Your task to perform on an android device: Empty the shopping cart on bestbuy.com. Add "macbook pro 15 inch" to the cart on bestbuy.com, then select checkout. Image 0: 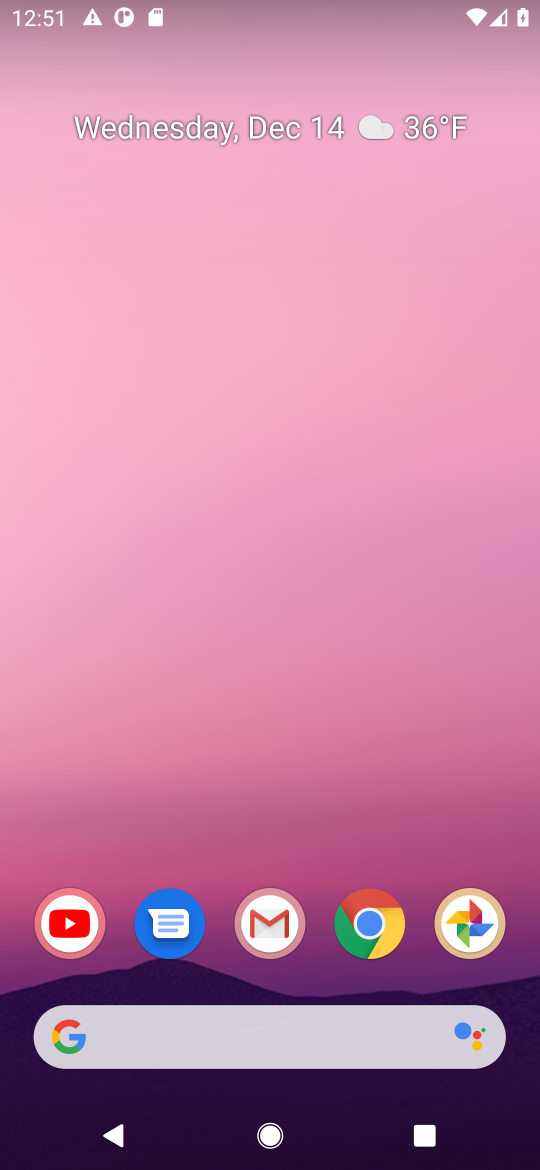
Step 0: click (354, 933)
Your task to perform on an android device: Empty the shopping cart on bestbuy.com. Add "macbook pro 15 inch" to the cart on bestbuy.com, then select checkout. Image 1: 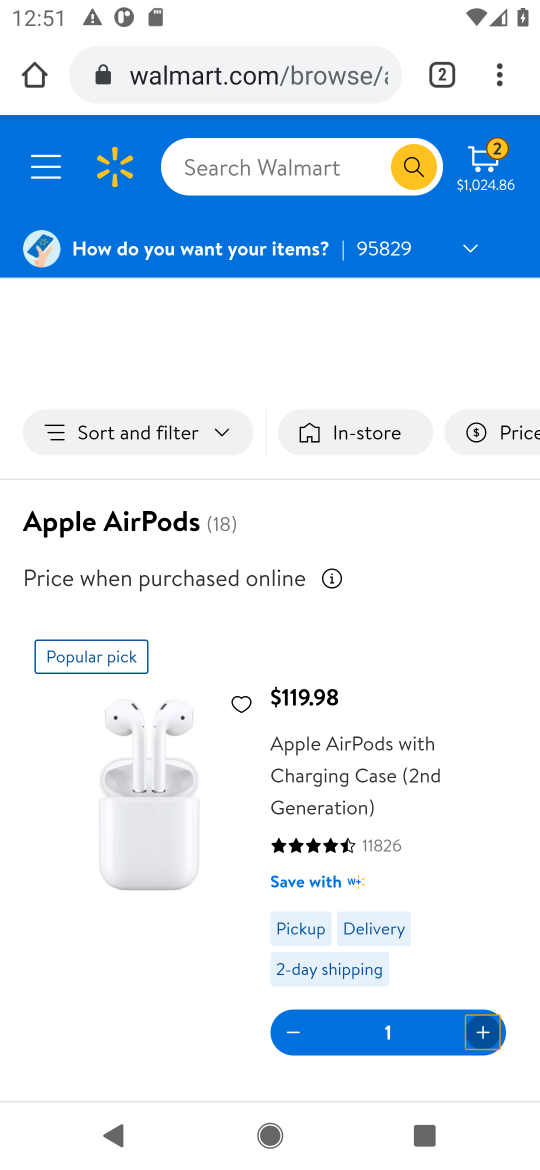
Step 1: click (222, 92)
Your task to perform on an android device: Empty the shopping cart on bestbuy.com. Add "macbook pro 15 inch" to the cart on bestbuy.com, then select checkout. Image 2: 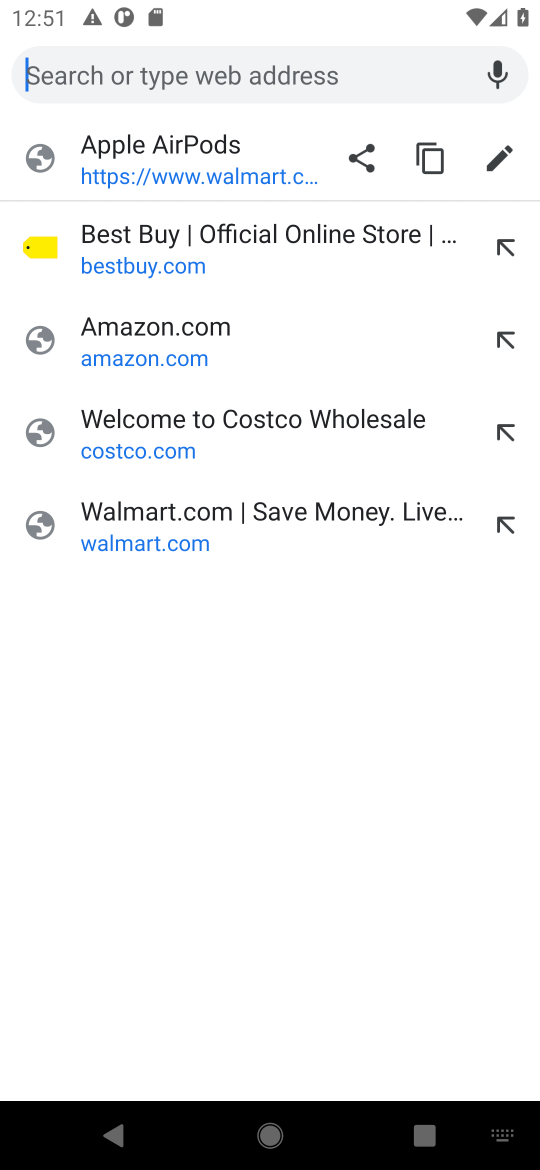
Step 2: type "bestbuy"
Your task to perform on an android device: Empty the shopping cart on bestbuy.com. Add "macbook pro 15 inch" to the cart on bestbuy.com, then select checkout. Image 3: 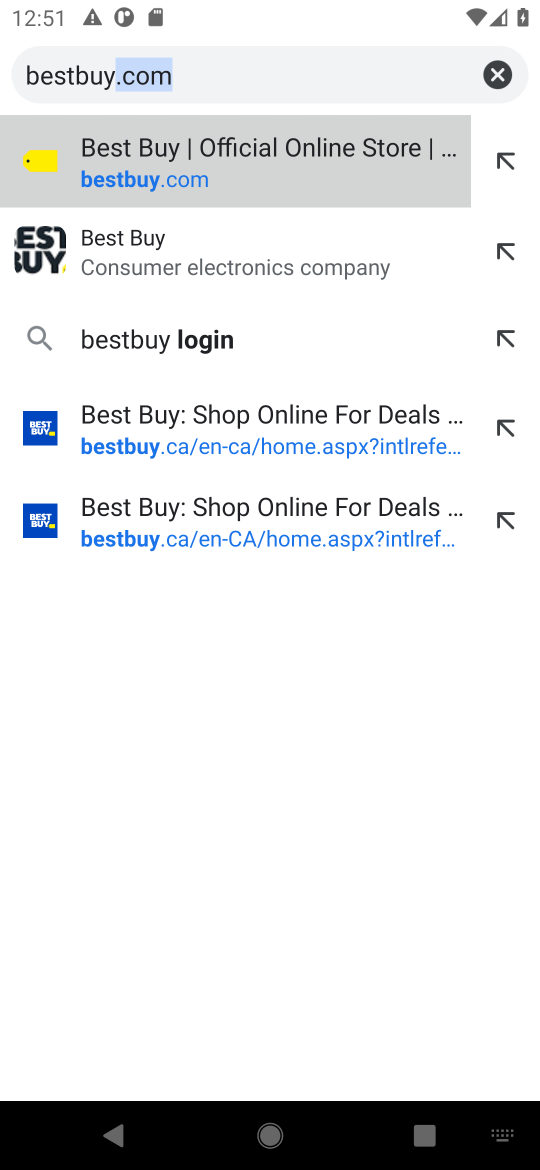
Step 3: click (192, 250)
Your task to perform on an android device: Empty the shopping cart on bestbuy.com. Add "macbook pro 15 inch" to the cart on bestbuy.com, then select checkout. Image 4: 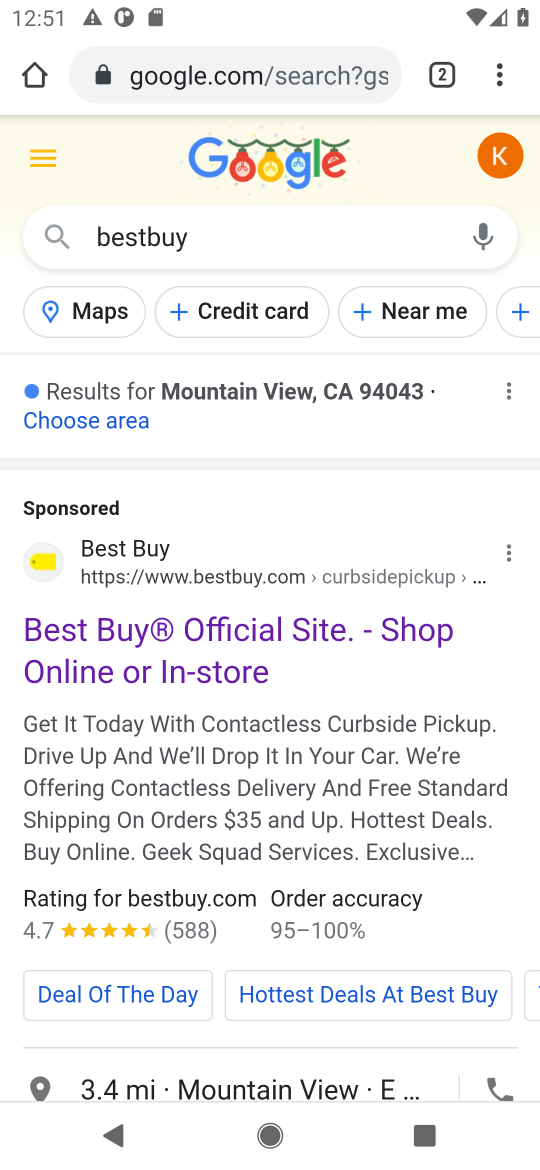
Step 4: click (154, 607)
Your task to perform on an android device: Empty the shopping cart on bestbuy.com. Add "macbook pro 15 inch" to the cart on bestbuy.com, then select checkout. Image 5: 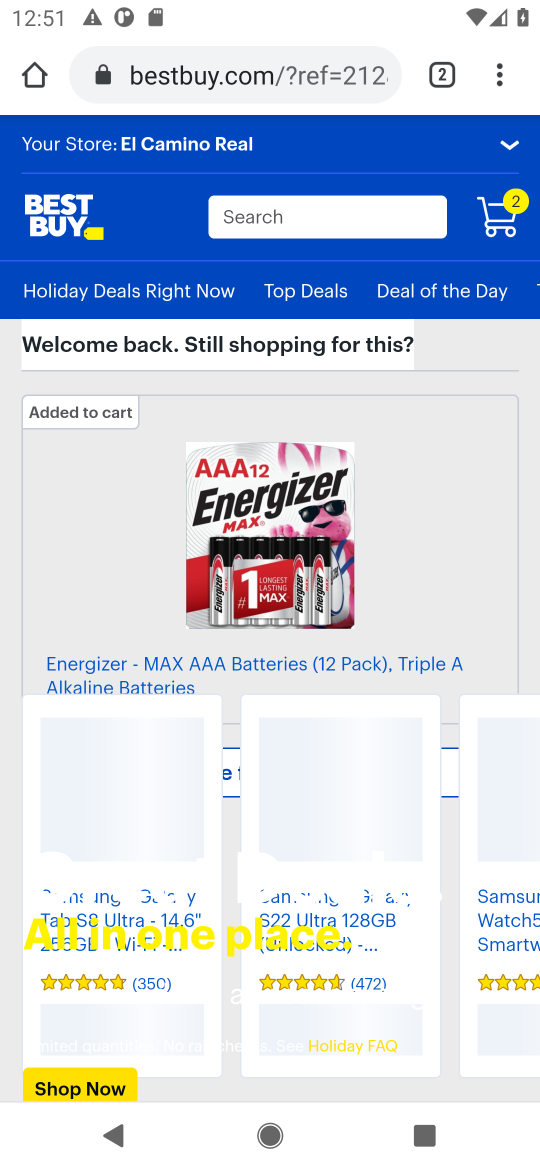
Step 5: click (245, 217)
Your task to perform on an android device: Empty the shopping cart on bestbuy.com. Add "macbook pro 15 inch" to the cart on bestbuy.com, then select checkout. Image 6: 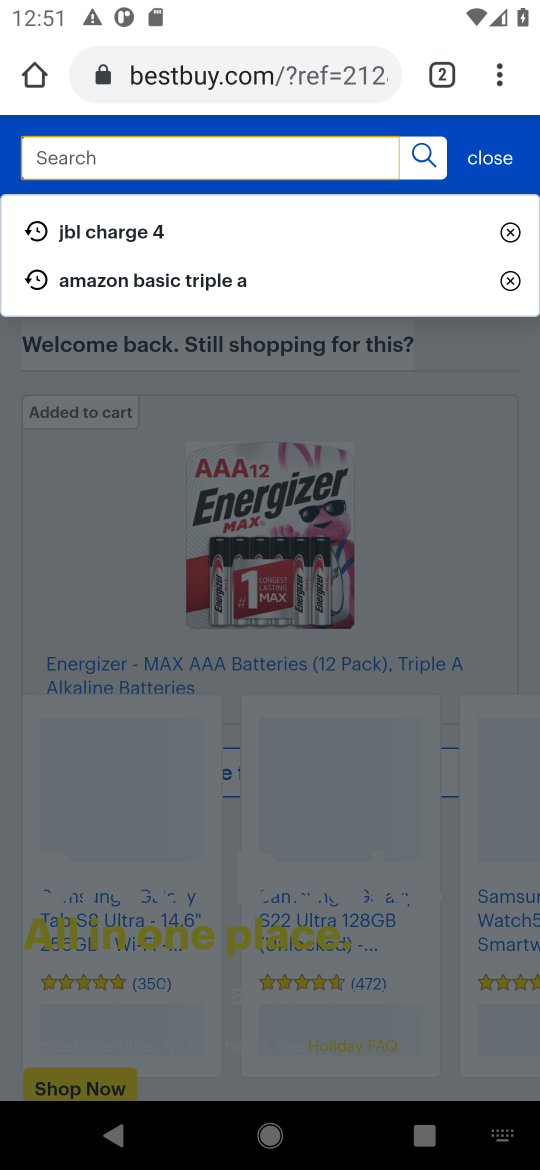
Step 6: type "macbook pro 15"
Your task to perform on an android device: Empty the shopping cart on bestbuy.com. Add "macbook pro 15 inch" to the cart on bestbuy.com, then select checkout. Image 7: 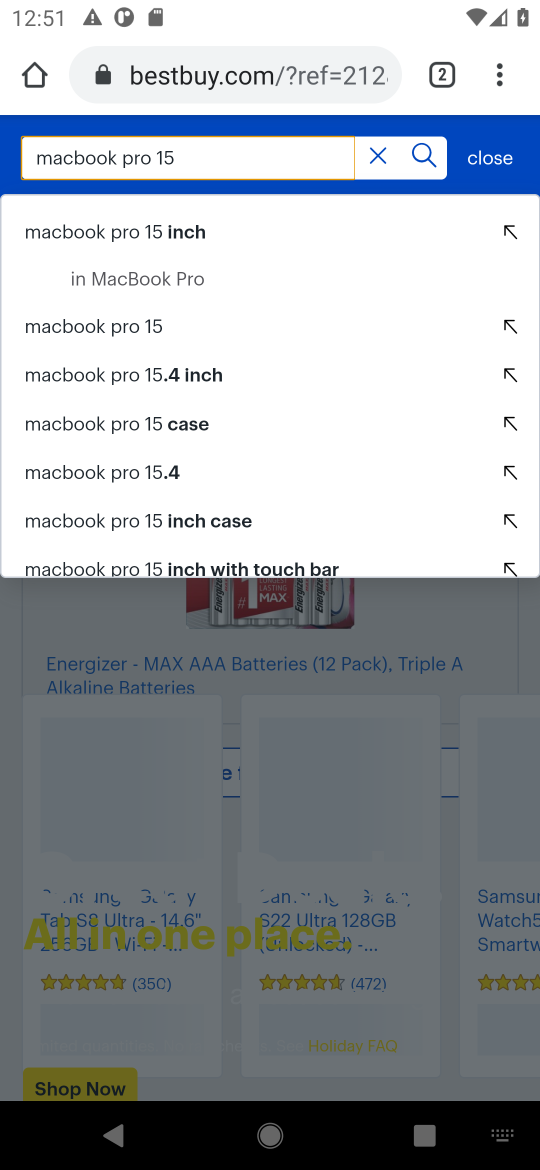
Step 7: click (222, 227)
Your task to perform on an android device: Empty the shopping cart on bestbuy.com. Add "macbook pro 15 inch" to the cart on bestbuy.com, then select checkout. Image 8: 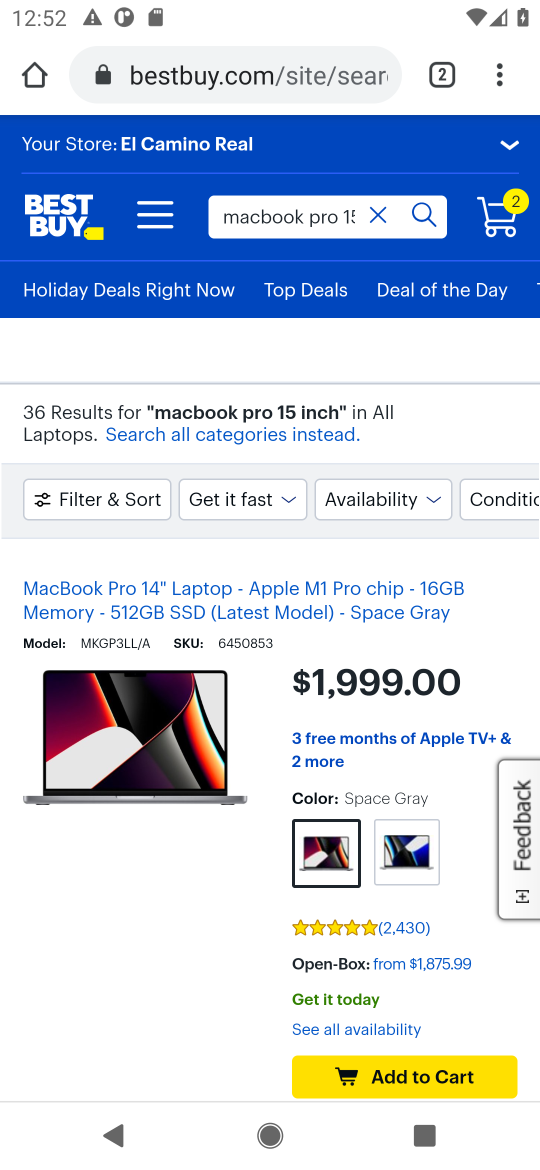
Step 8: click (444, 1063)
Your task to perform on an android device: Empty the shopping cart on bestbuy.com. Add "macbook pro 15 inch" to the cart on bestbuy.com, then select checkout. Image 9: 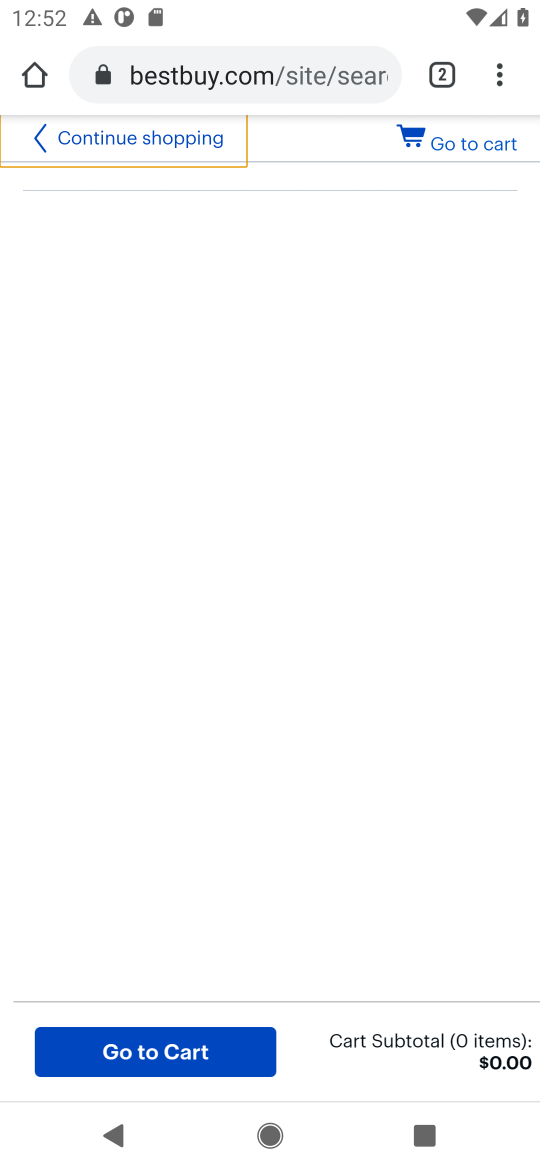
Step 9: task complete